Your task to perform on an android device: Go to battery settings Image 0: 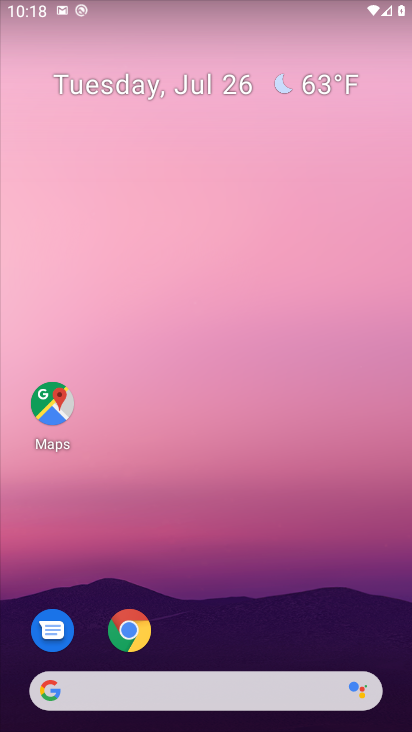
Step 0: press home button
Your task to perform on an android device: Go to battery settings Image 1: 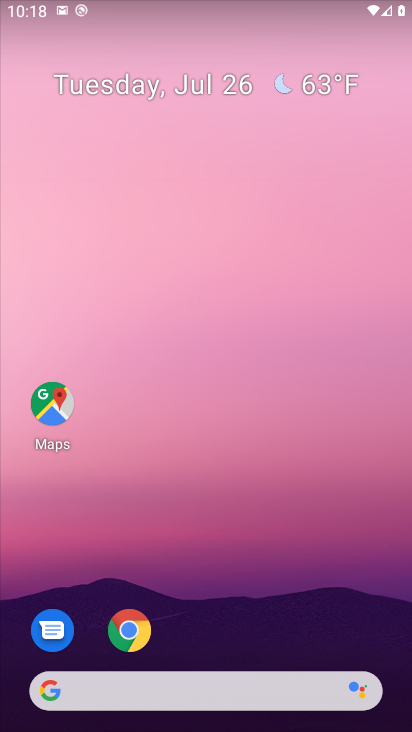
Step 1: drag from (209, 652) to (217, 154)
Your task to perform on an android device: Go to battery settings Image 2: 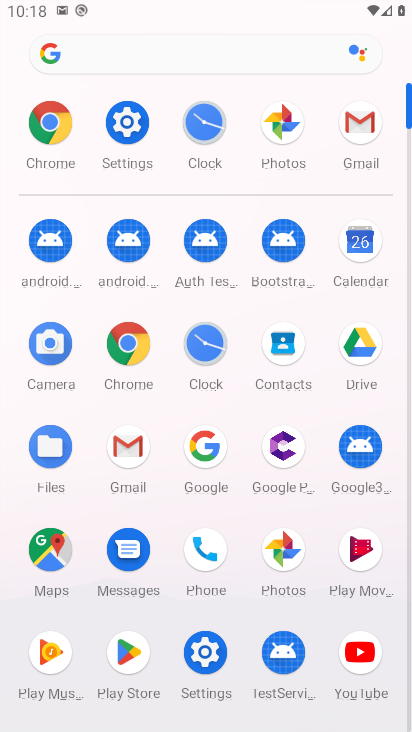
Step 2: click (127, 110)
Your task to perform on an android device: Go to battery settings Image 3: 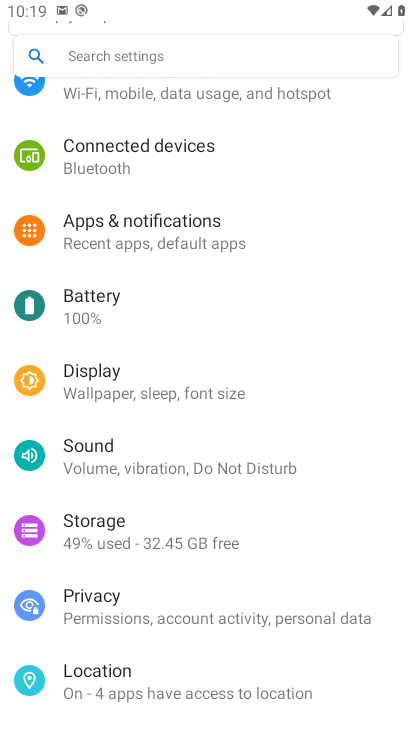
Step 3: click (126, 309)
Your task to perform on an android device: Go to battery settings Image 4: 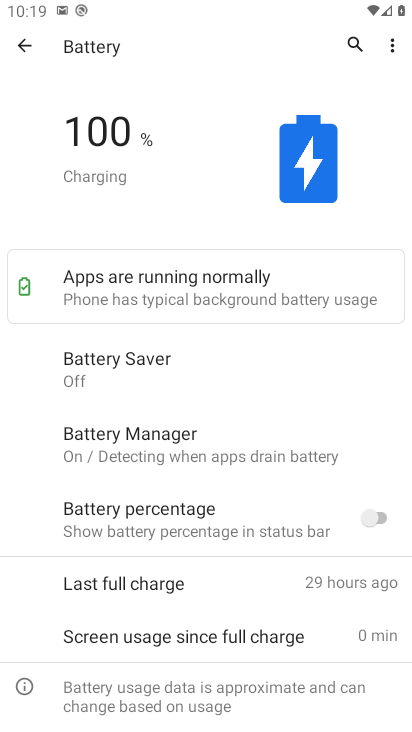
Step 4: task complete